Your task to perform on an android device: Go to Yahoo.com Image 0: 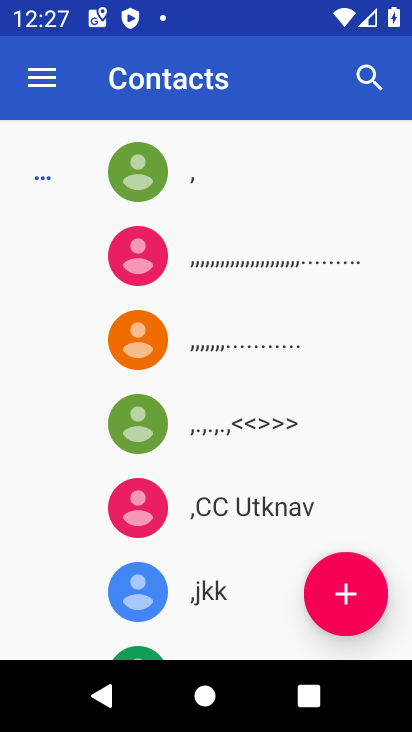
Step 0: press home button
Your task to perform on an android device: Go to Yahoo.com Image 1: 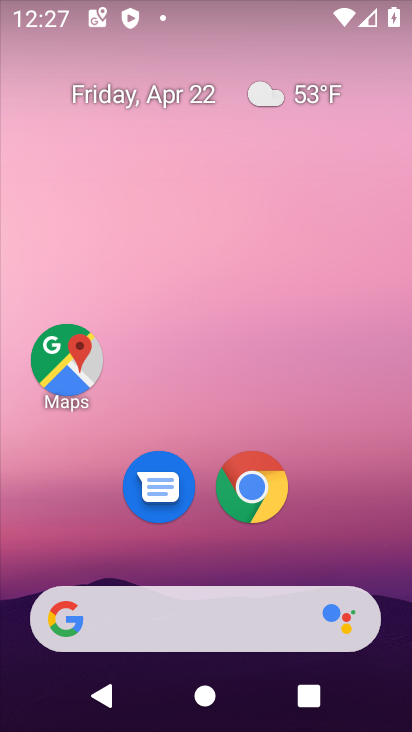
Step 1: click (236, 633)
Your task to perform on an android device: Go to Yahoo.com Image 2: 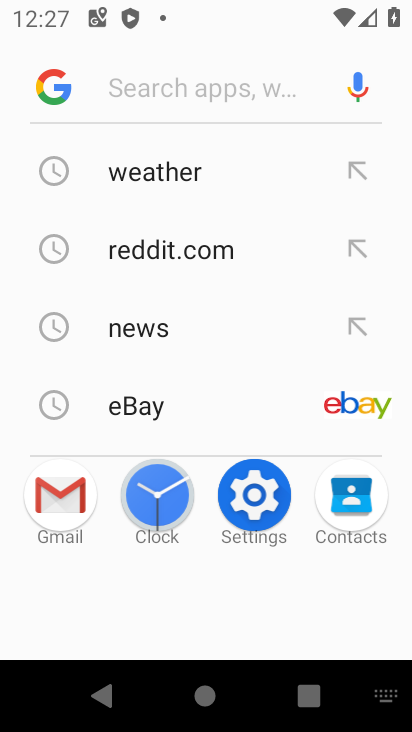
Step 2: type "yahoo.com"
Your task to perform on an android device: Go to Yahoo.com Image 3: 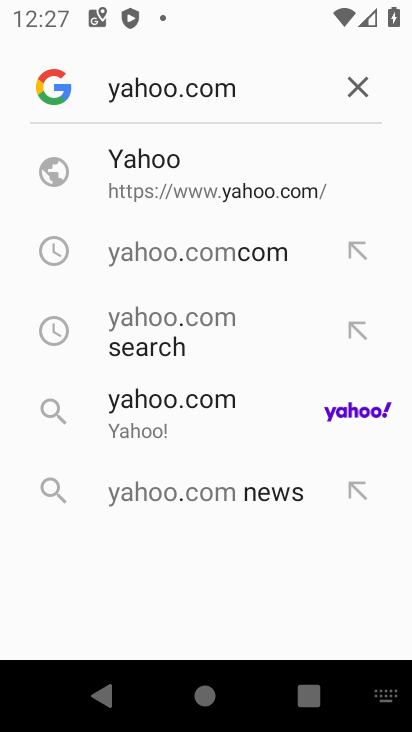
Step 3: click (193, 411)
Your task to perform on an android device: Go to Yahoo.com Image 4: 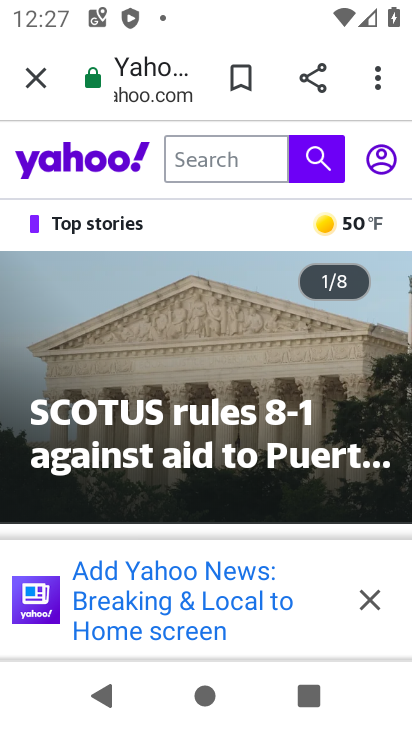
Step 4: task complete